Your task to perform on an android device: open sync settings in chrome Image 0: 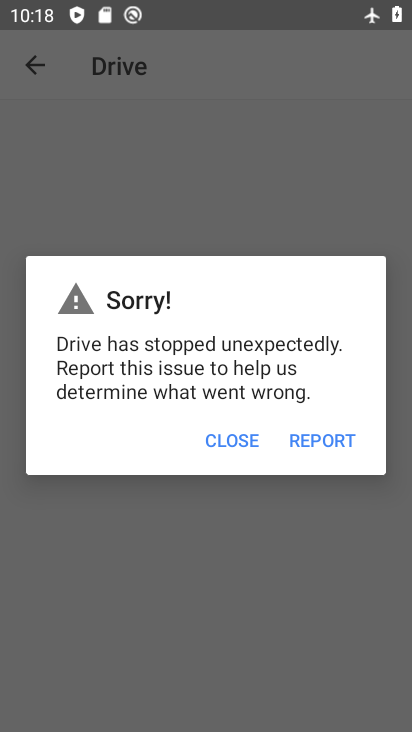
Step 0: press back button
Your task to perform on an android device: open sync settings in chrome Image 1: 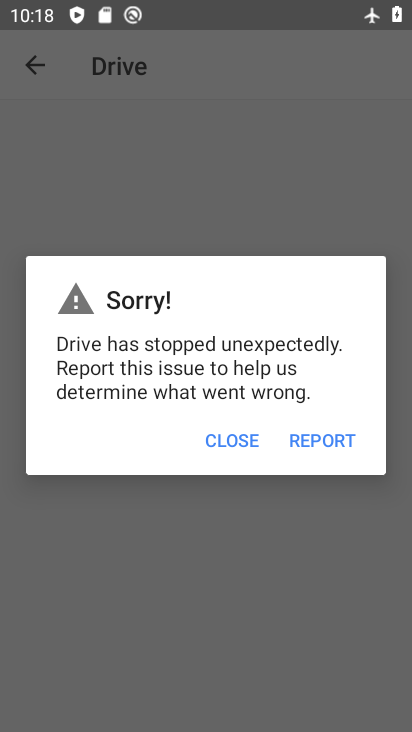
Step 1: press home button
Your task to perform on an android device: open sync settings in chrome Image 2: 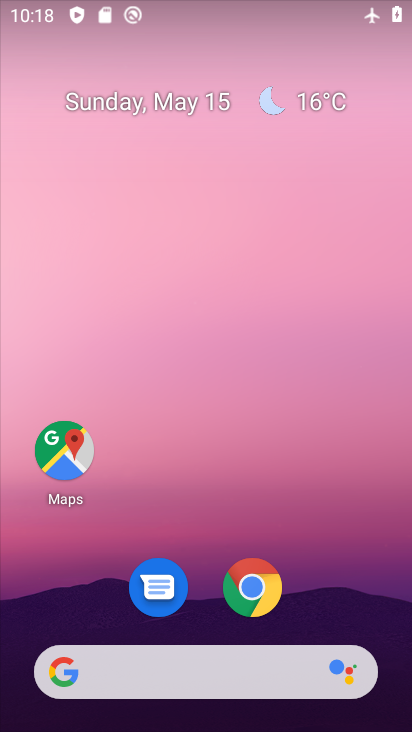
Step 2: drag from (287, 360) to (257, 6)
Your task to perform on an android device: open sync settings in chrome Image 3: 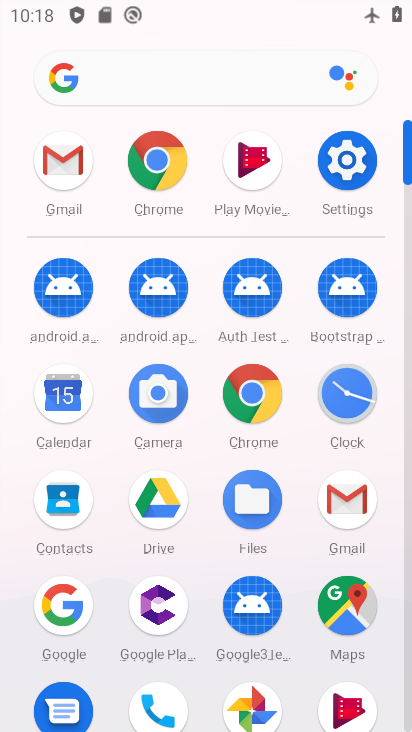
Step 3: click (156, 156)
Your task to perform on an android device: open sync settings in chrome Image 4: 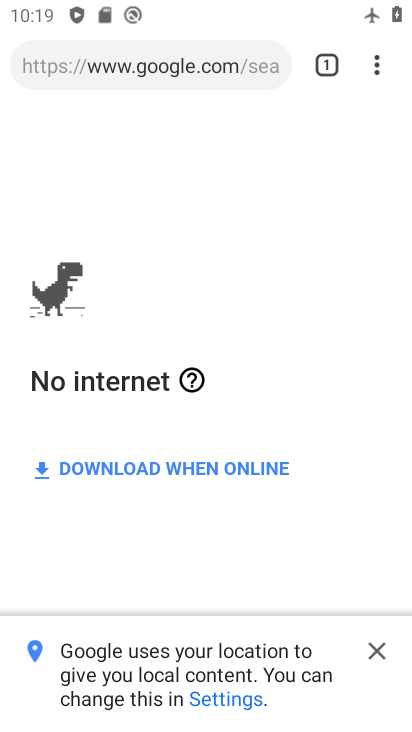
Step 4: drag from (379, 61) to (165, 628)
Your task to perform on an android device: open sync settings in chrome Image 5: 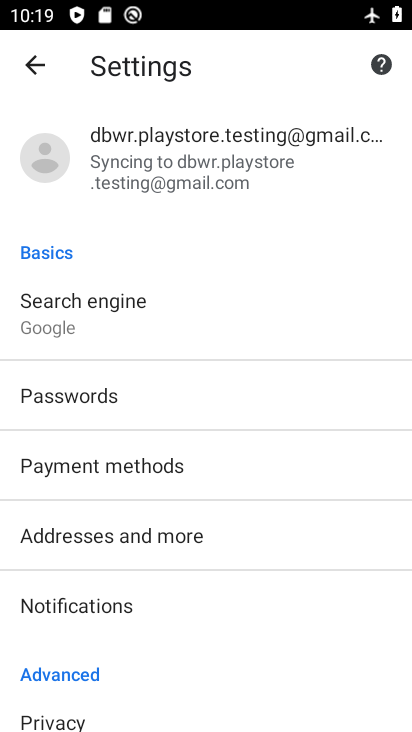
Step 5: click (124, 175)
Your task to perform on an android device: open sync settings in chrome Image 6: 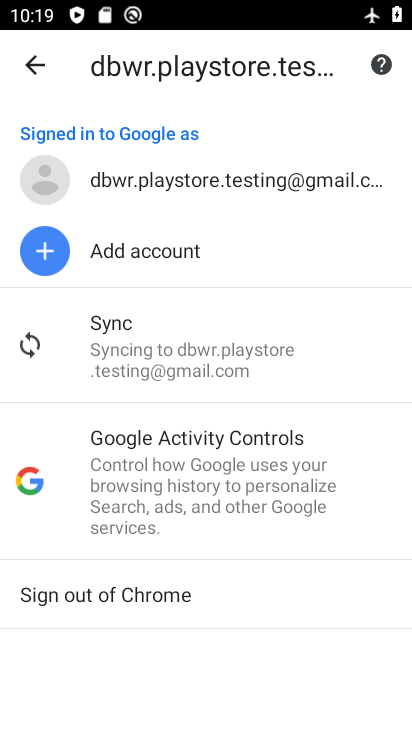
Step 6: click (138, 351)
Your task to perform on an android device: open sync settings in chrome Image 7: 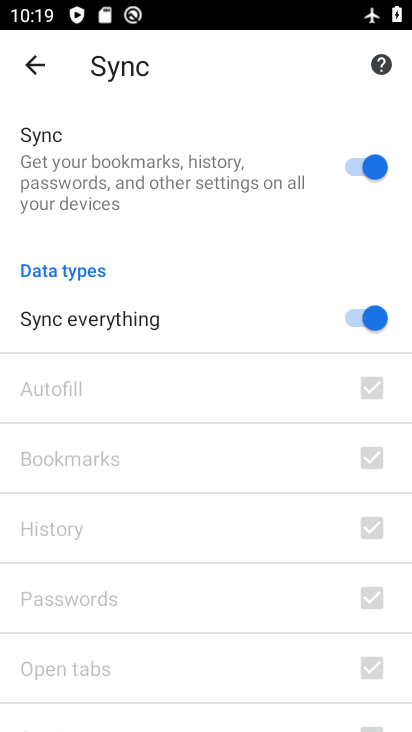
Step 7: task complete